Your task to perform on an android device: Open wifi settings Image 0: 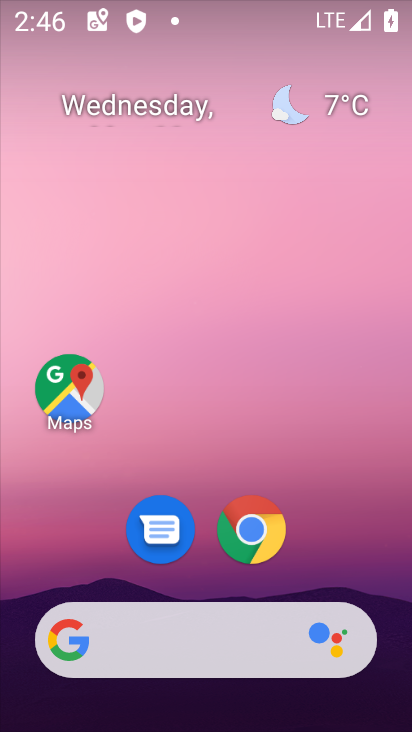
Step 0: drag from (178, 1) to (95, 437)
Your task to perform on an android device: Open wifi settings Image 1: 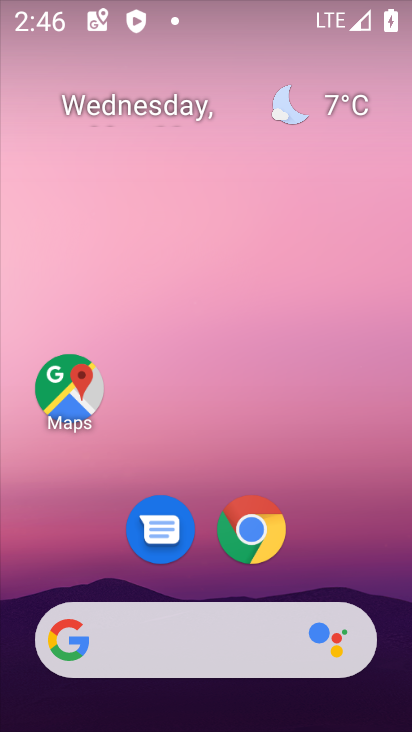
Step 1: drag from (247, 6) to (190, 600)
Your task to perform on an android device: Open wifi settings Image 2: 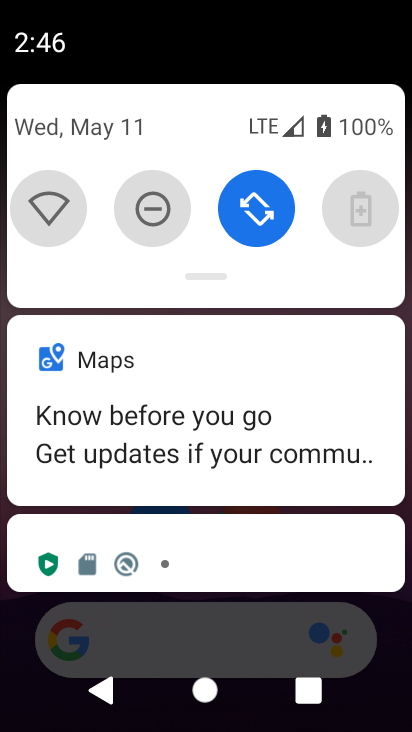
Step 2: click (62, 202)
Your task to perform on an android device: Open wifi settings Image 3: 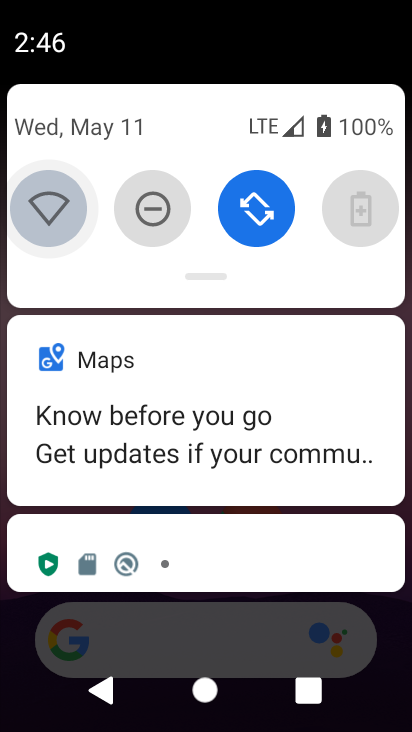
Step 3: click (62, 202)
Your task to perform on an android device: Open wifi settings Image 4: 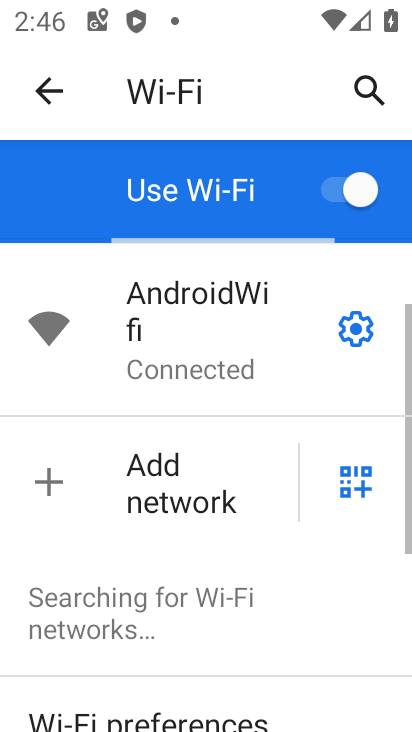
Step 4: click (359, 328)
Your task to perform on an android device: Open wifi settings Image 5: 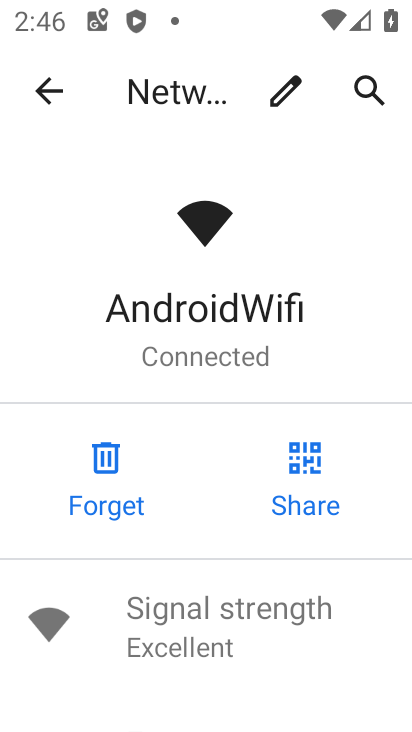
Step 5: task complete